Your task to perform on an android device: turn pop-ups off in chrome Image 0: 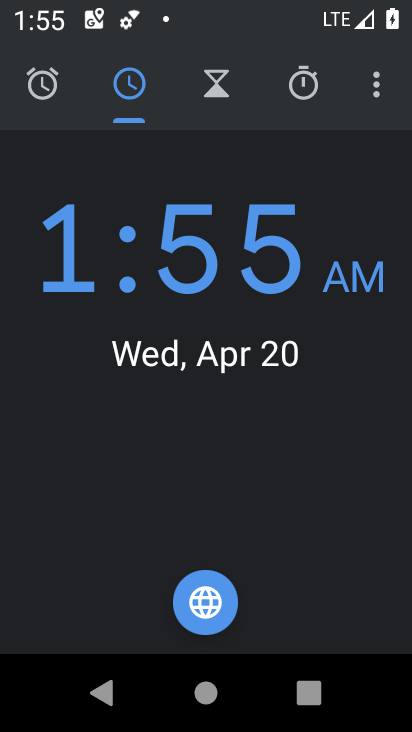
Step 0: press home button
Your task to perform on an android device: turn pop-ups off in chrome Image 1: 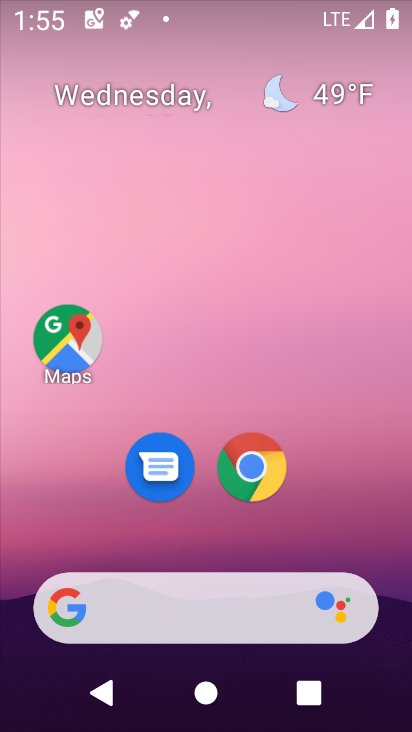
Step 1: click (252, 465)
Your task to perform on an android device: turn pop-ups off in chrome Image 2: 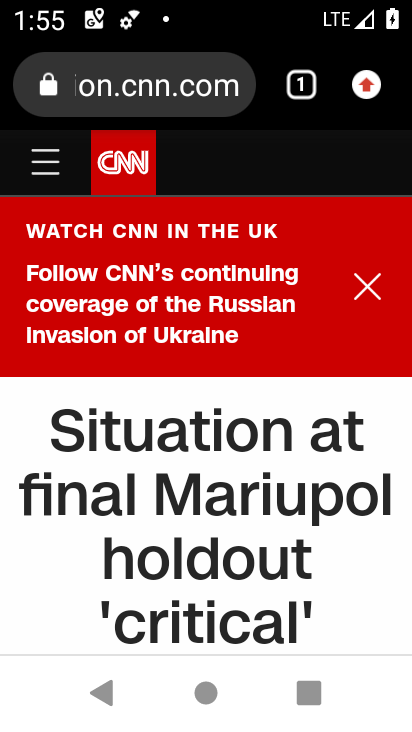
Step 2: click (369, 86)
Your task to perform on an android device: turn pop-ups off in chrome Image 3: 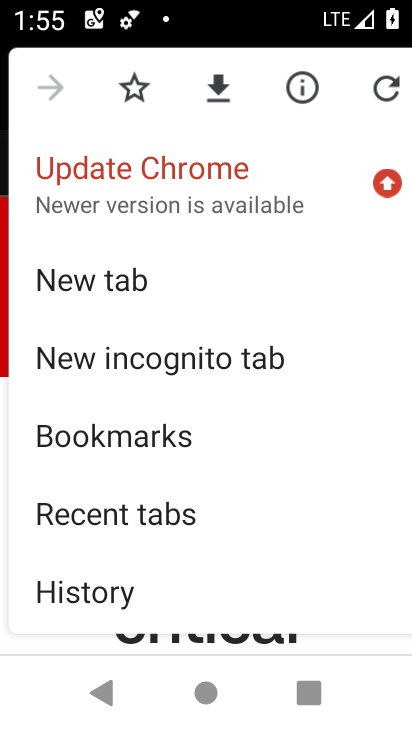
Step 3: drag from (258, 532) to (240, 239)
Your task to perform on an android device: turn pop-ups off in chrome Image 4: 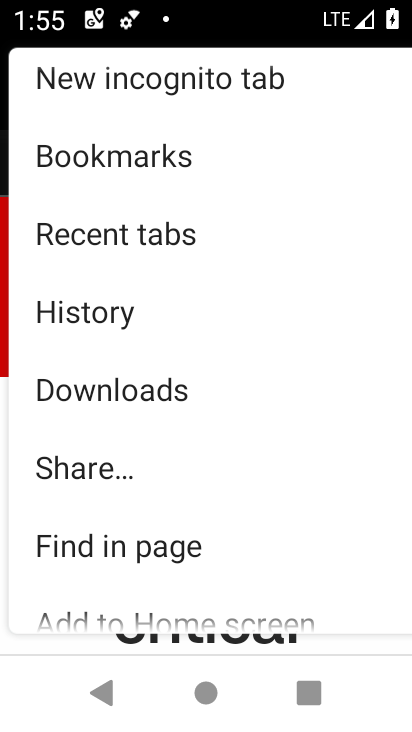
Step 4: drag from (171, 512) to (224, 255)
Your task to perform on an android device: turn pop-ups off in chrome Image 5: 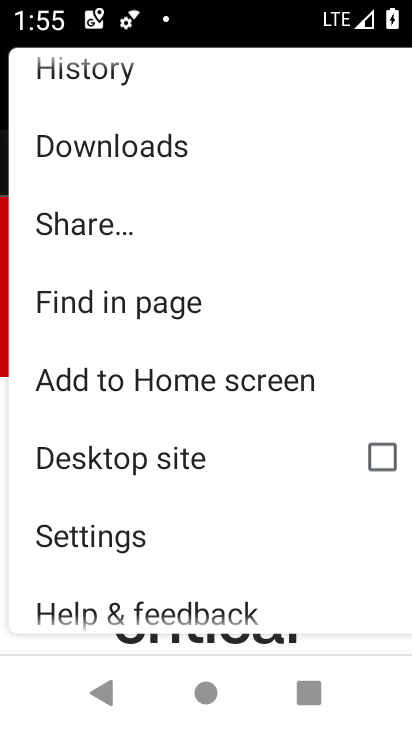
Step 5: click (111, 533)
Your task to perform on an android device: turn pop-ups off in chrome Image 6: 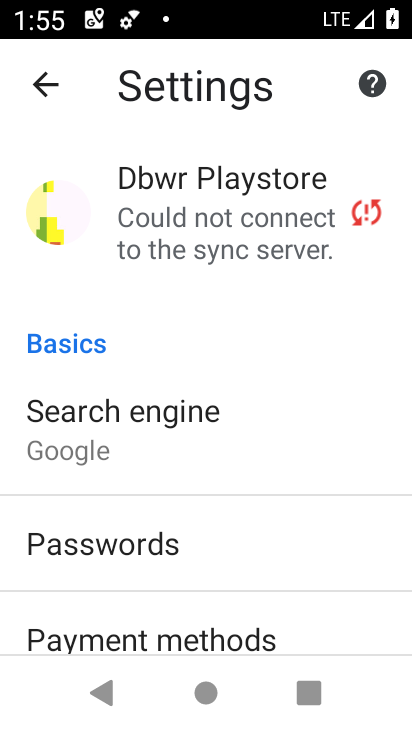
Step 6: drag from (274, 587) to (291, 240)
Your task to perform on an android device: turn pop-ups off in chrome Image 7: 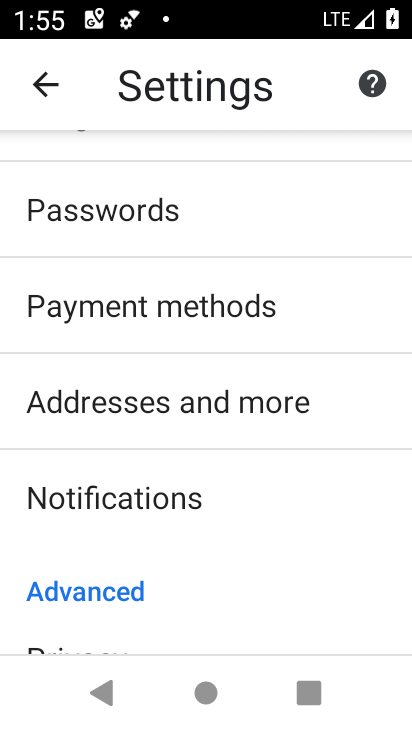
Step 7: drag from (284, 515) to (349, 241)
Your task to perform on an android device: turn pop-ups off in chrome Image 8: 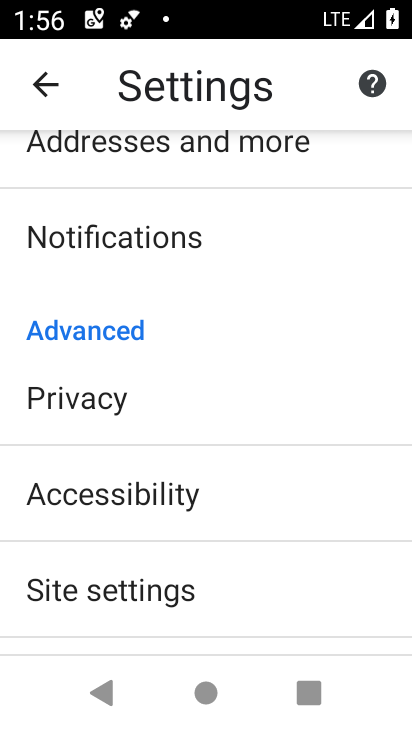
Step 8: drag from (274, 530) to (258, 206)
Your task to perform on an android device: turn pop-ups off in chrome Image 9: 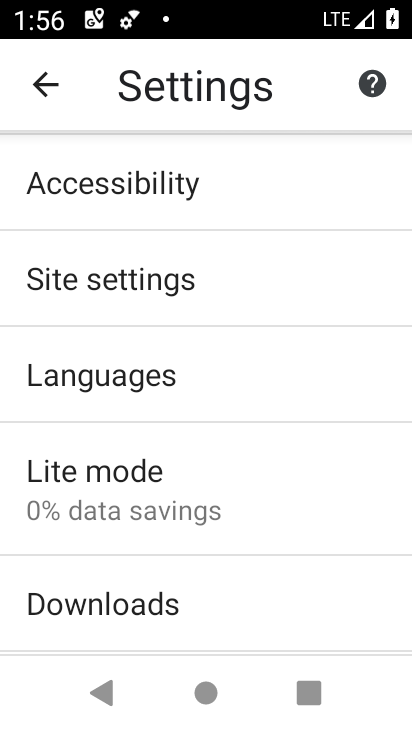
Step 9: click (105, 298)
Your task to perform on an android device: turn pop-ups off in chrome Image 10: 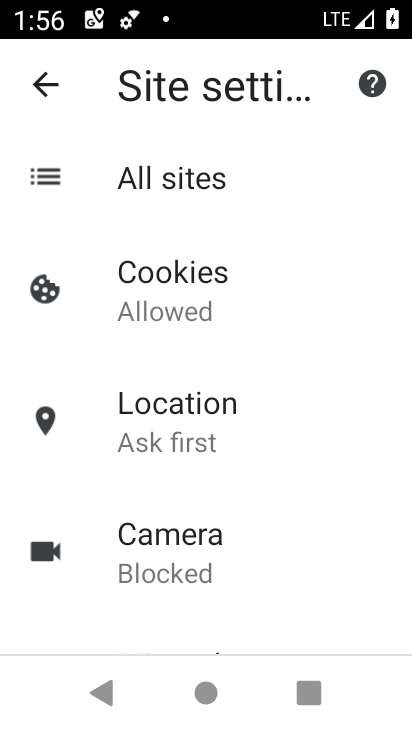
Step 10: drag from (272, 549) to (263, 219)
Your task to perform on an android device: turn pop-ups off in chrome Image 11: 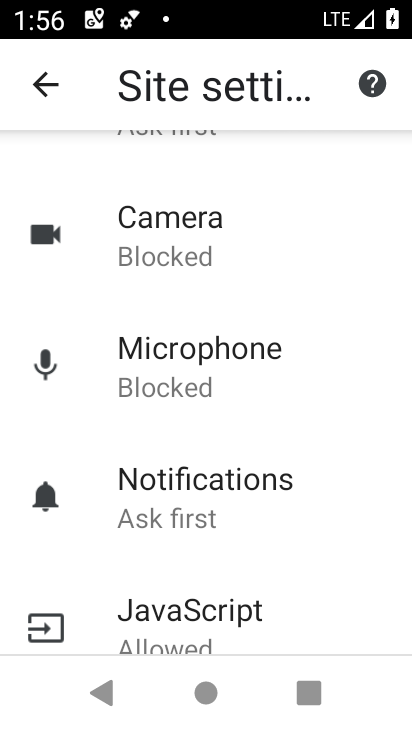
Step 11: drag from (249, 532) to (277, 318)
Your task to perform on an android device: turn pop-ups off in chrome Image 12: 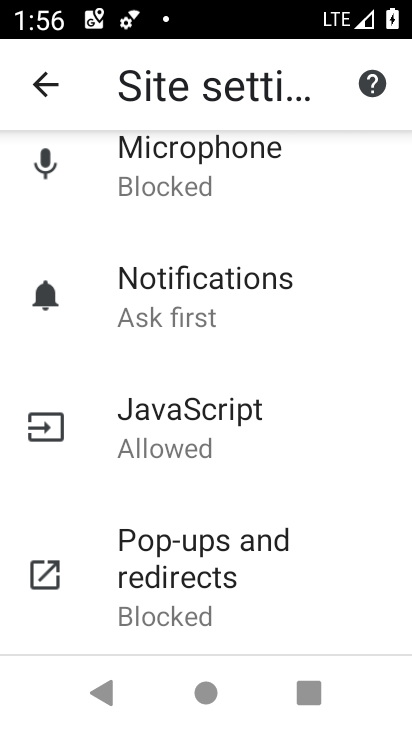
Step 12: click (168, 550)
Your task to perform on an android device: turn pop-ups off in chrome Image 13: 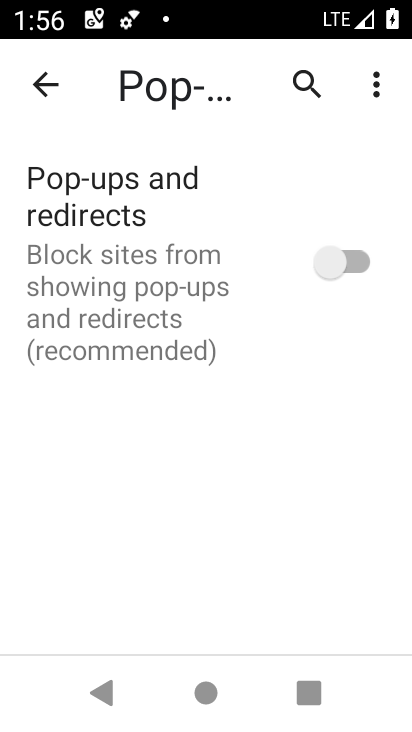
Step 13: task complete